Your task to perform on an android device: add a contact in the contacts app Image 0: 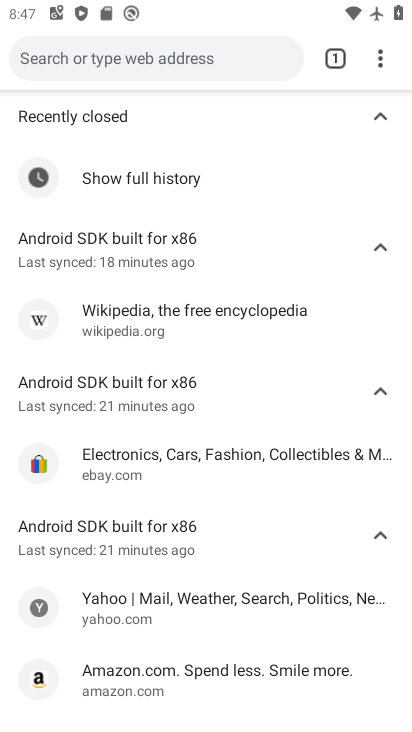
Step 0: press home button
Your task to perform on an android device: add a contact in the contacts app Image 1: 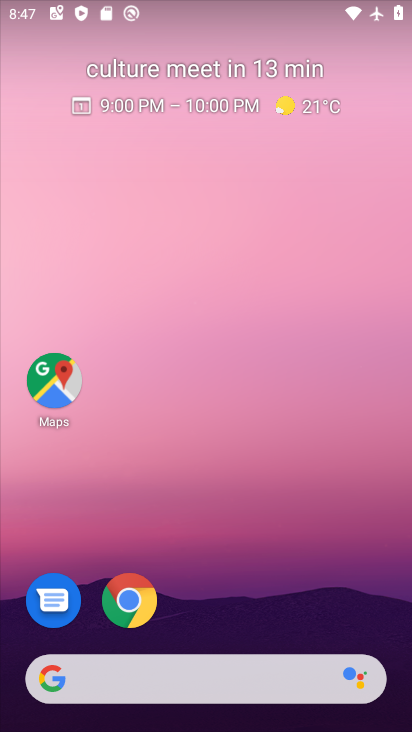
Step 1: drag from (395, 636) to (344, 218)
Your task to perform on an android device: add a contact in the contacts app Image 2: 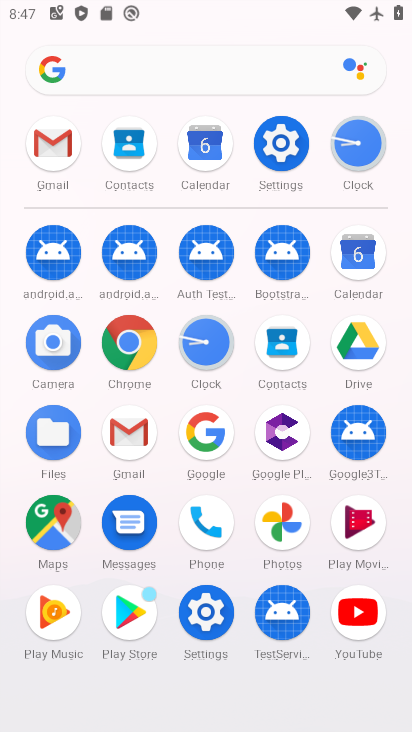
Step 2: click (281, 341)
Your task to perform on an android device: add a contact in the contacts app Image 3: 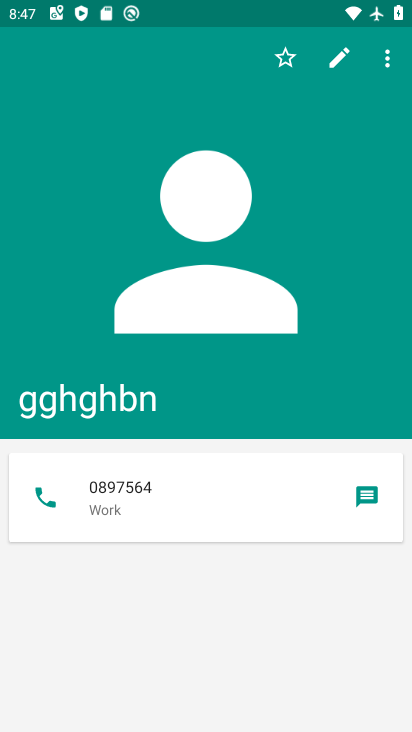
Step 3: press back button
Your task to perform on an android device: add a contact in the contacts app Image 4: 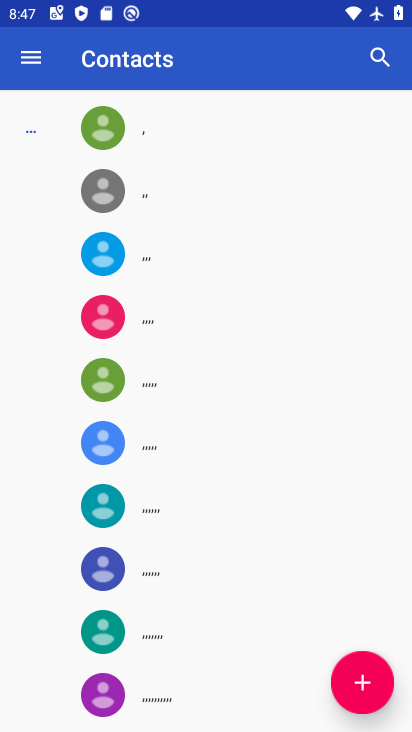
Step 4: click (362, 677)
Your task to perform on an android device: add a contact in the contacts app Image 5: 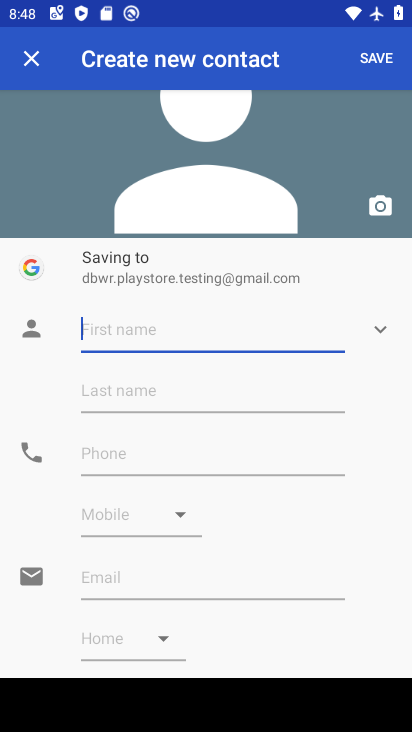
Step 5: type "bvnnnfgf"
Your task to perform on an android device: add a contact in the contacts app Image 6: 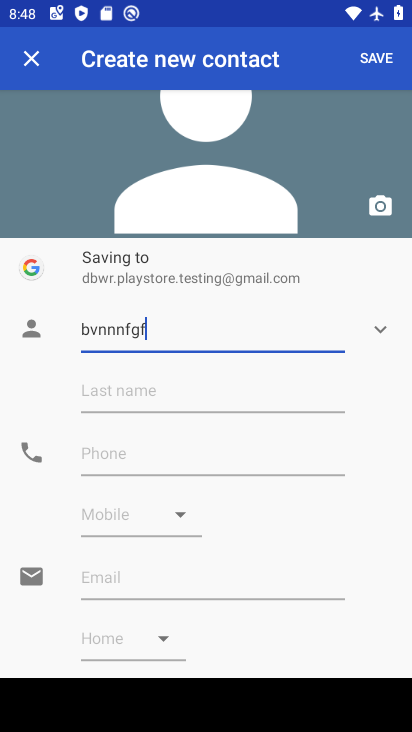
Step 6: click (134, 462)
Your task to perform on an android device: add a contact in the contacts app Image 7: 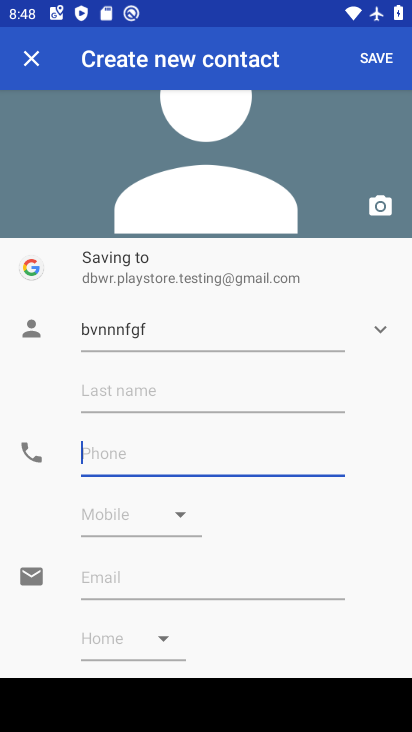
Step 7: type "0987564345"
Your task to perform on an android device: add a contact in the contacts app Image 8: 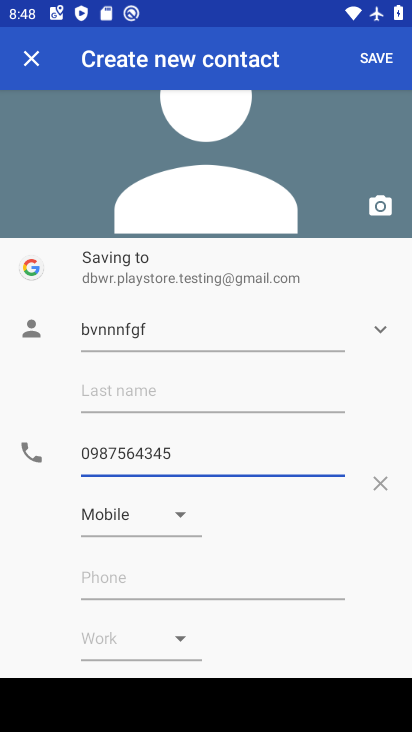
Step 8: click (179, 515)
Your task to perform on an android device: add a contact in the contacts app Image 9: 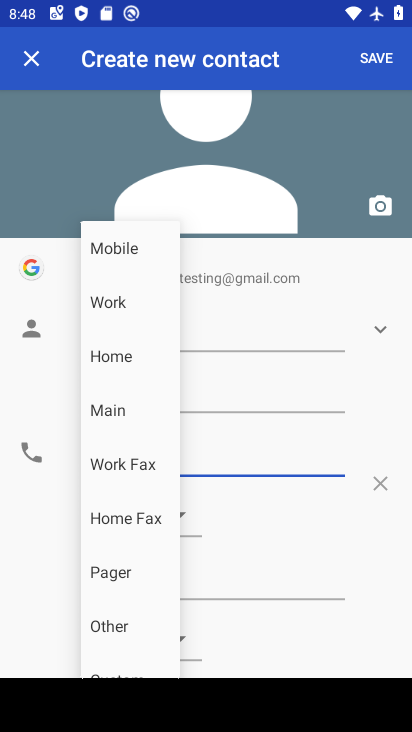
Step 9: click (104, 300)
Your task to perform on an android device: add a contact in the contacts app Image 10: 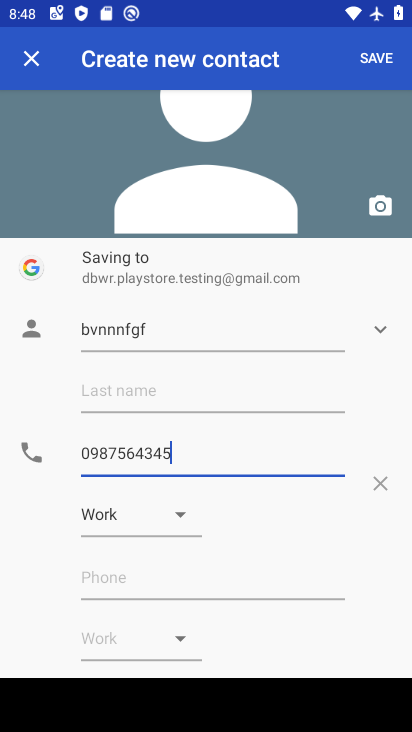
Step 10: click (378, 60)
Your task to perform on an android device: add a contact in the contacts app Image 11: 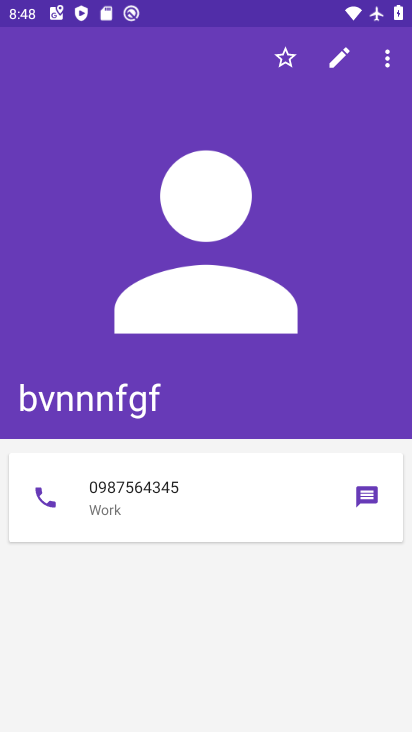
Step 11: task complete